Your task to perform on an android device: Show me the alarms in the clock app Image 0: 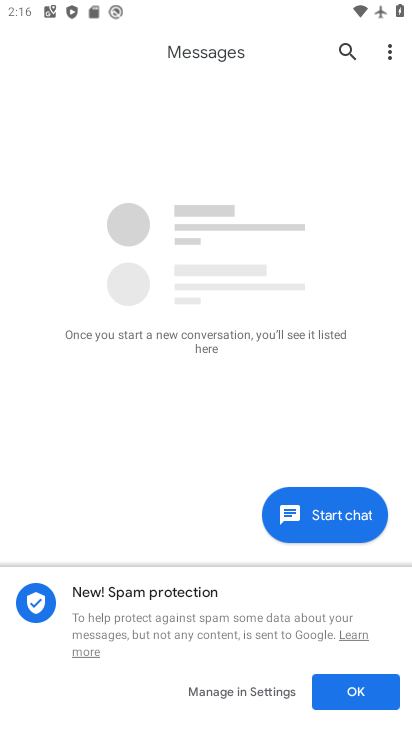
Step 0: press home button
Your task to perform on an android device: Show me the alarms in the clock app Image 1: 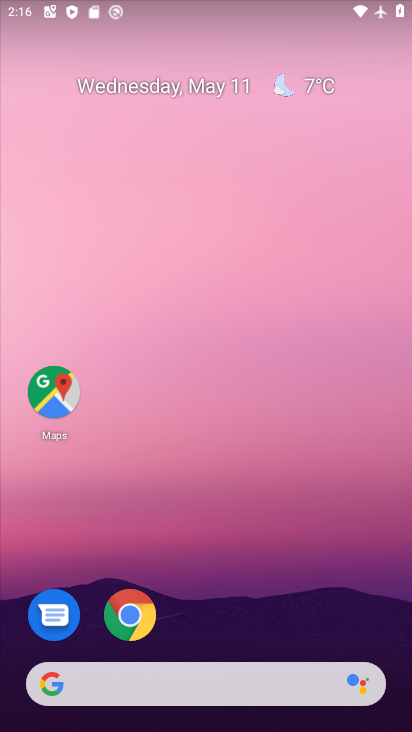
Step 1: drag from (266, 585) to (281, 87)
Your task to perform on an android device: Show me the alarms in the clock app Image 2: 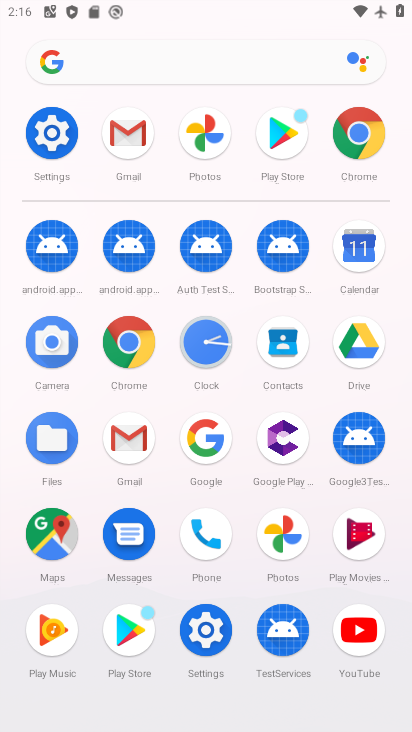
Step 2: click (201, 349)
Your task to perform on an android device: Show me the alarms in the clock app Image 3: 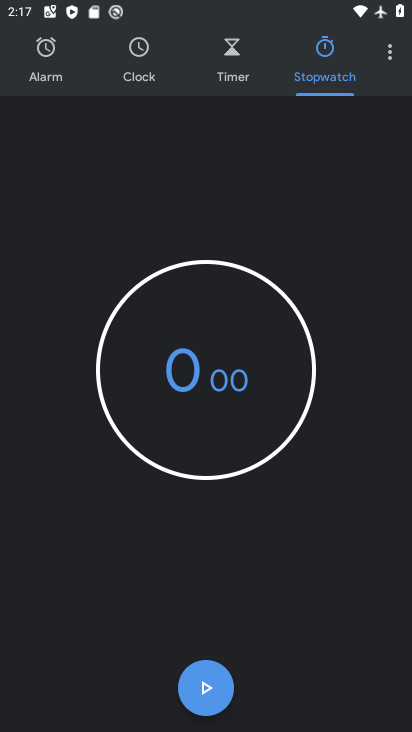
Step 3: click (54, 55)
Your task to perform on an android device: Show me the alarms in the clock app Image 4: 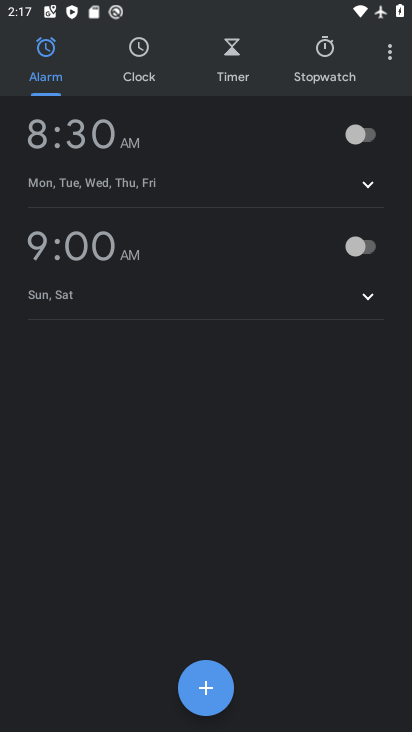
Step 4: task complete